Your task to perform on an android device: Open Amazon Image 0: 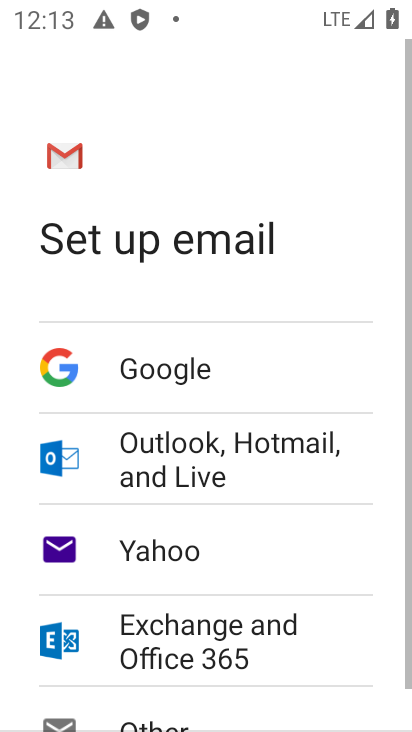
Step 0: press back button
Your task to perform on an android device: Open Amazon Image 1: 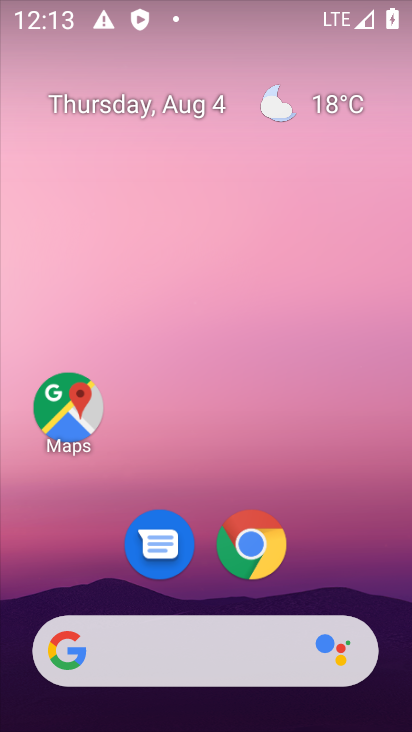
Step 1: click (251, 543)
Your task to perform on an android device: Open Amazon Image 2: 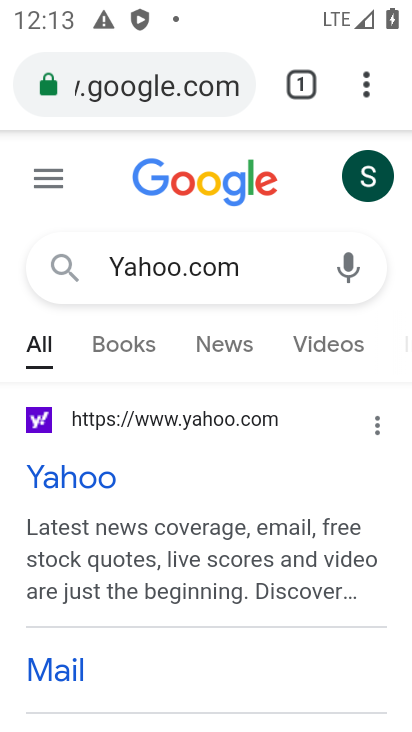
Step 2: click (259, 80)
Your task to perform on an android device: Open Amazon Image 3: 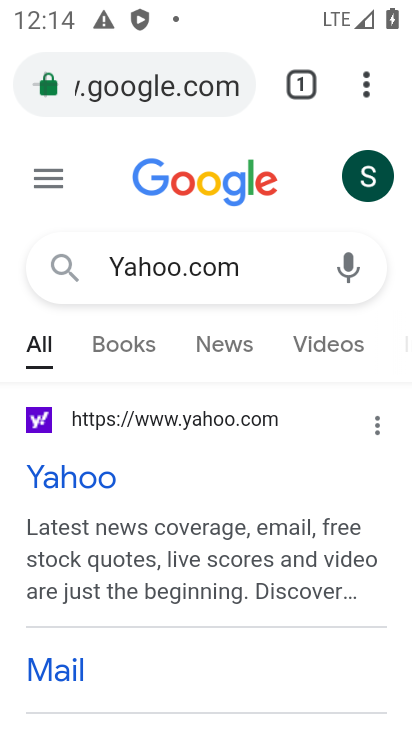
Step 3: click (228, 91)
Your task to perform on an android device: Open Amazon Image 4: 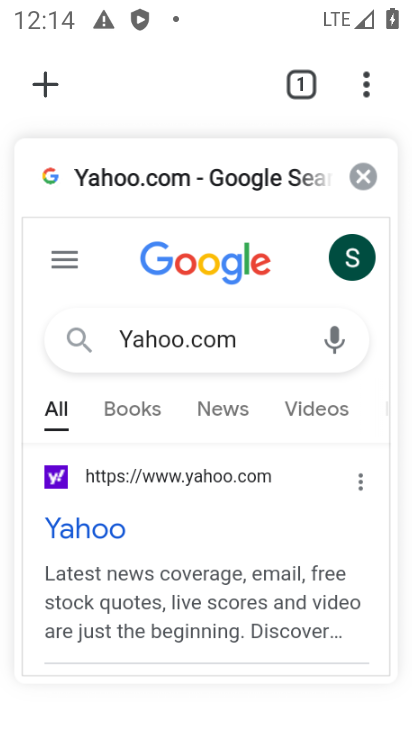
Step 4: click (312, 156)
Your task to perform on an android device: Open Amazon Image 5: 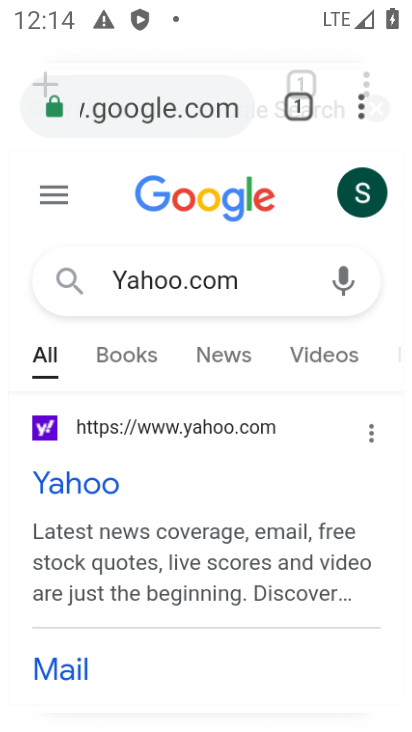
Step 5: click (228, 102)
Your task to perform on an android device: Open Amazon Image 6: 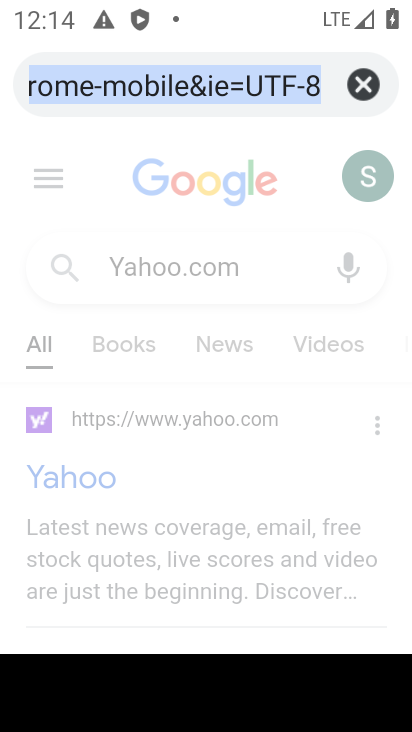
Step 6: click (353, 89)
Your task to perform on an android device: Open Amazon Image 7: 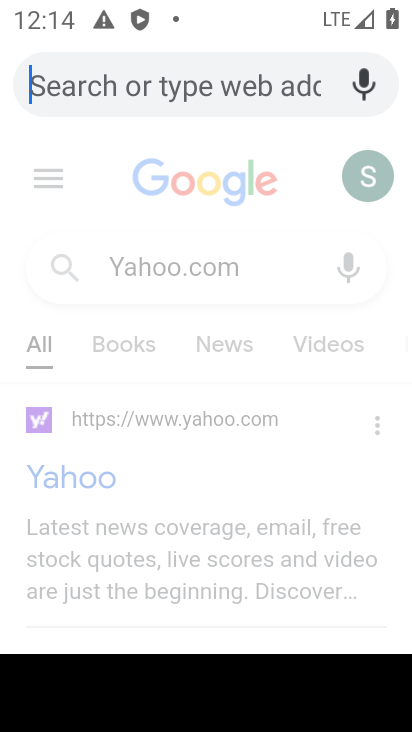
Step 7: type "Amazon"
Your task to perform on an android device: Open Amazon Image 8: 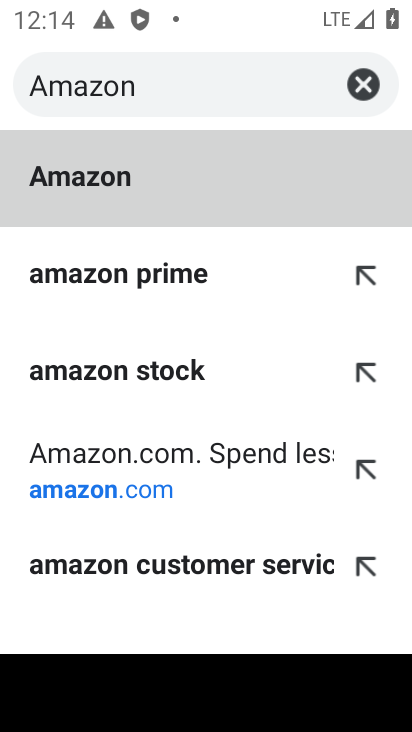
Step 8: click (131, 192)
Your task to perform on an android device: Open Amazon Image 9: 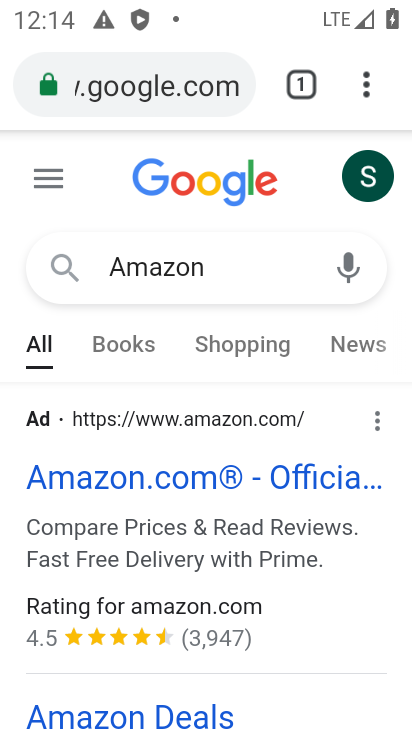
Step 9: drag from (186, 562) to (194, 394)
Your task to perform on an android device: Open Amazon Image 10: 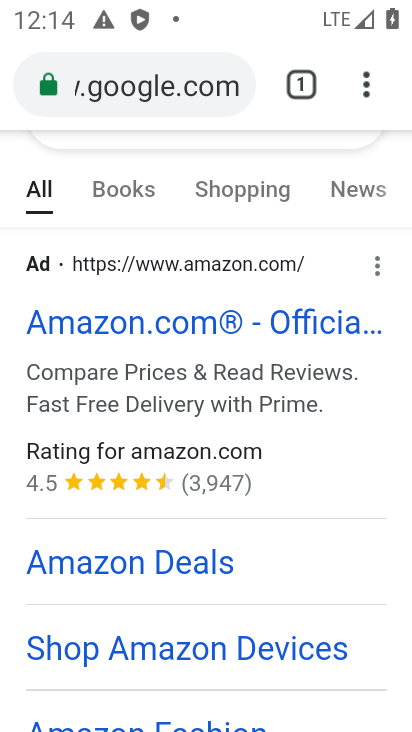
Step 10: click (63, 333)
Your task to perform on an android device: Open Amazon Image 11: 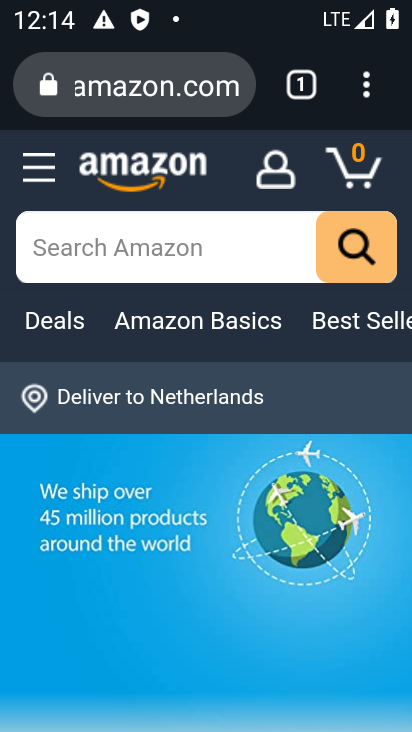
Step 11: task complete